Your task to perform on an android device: Add lg ultragear to the cart on bestbuy, then select checkout. Image 0: 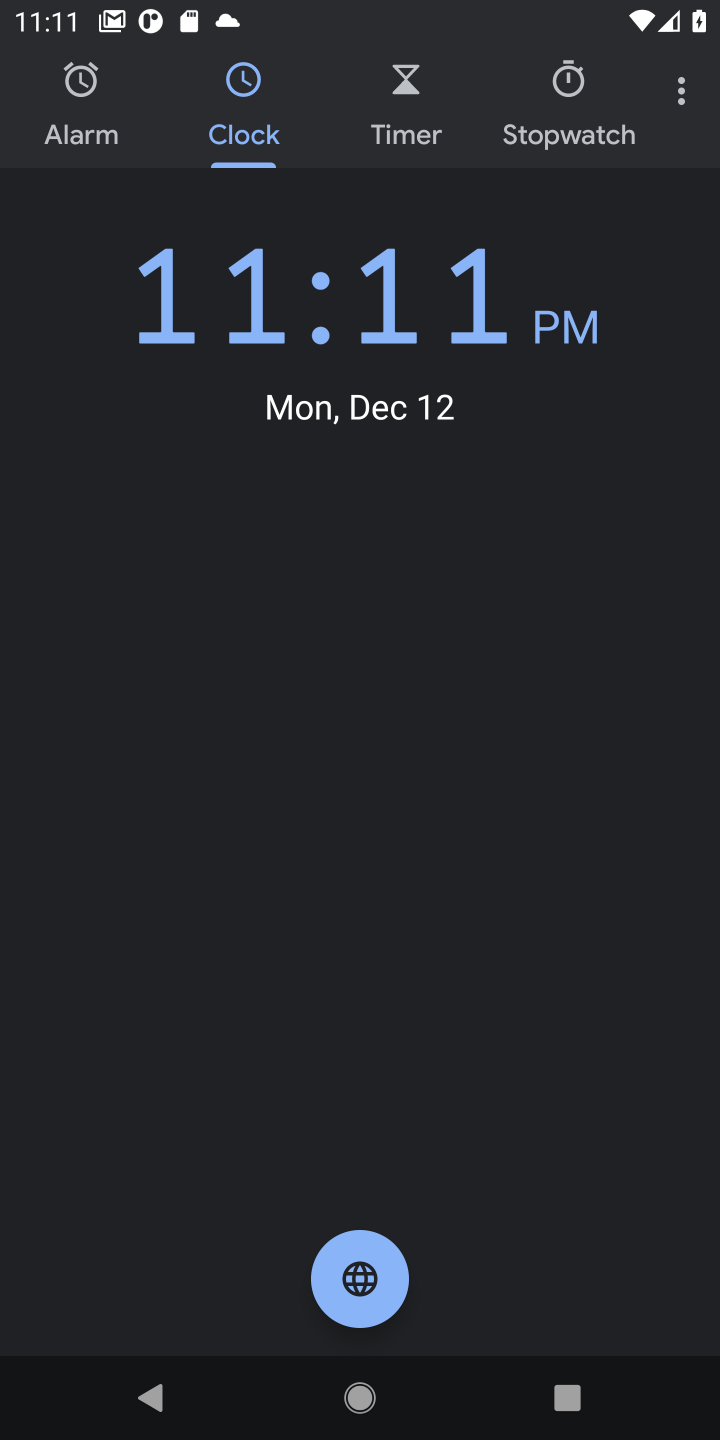
Step 0: press home button
Your task to perform on an android device: Add lg ultragear to the cart on bestbuy, then select checkout. Image 1: 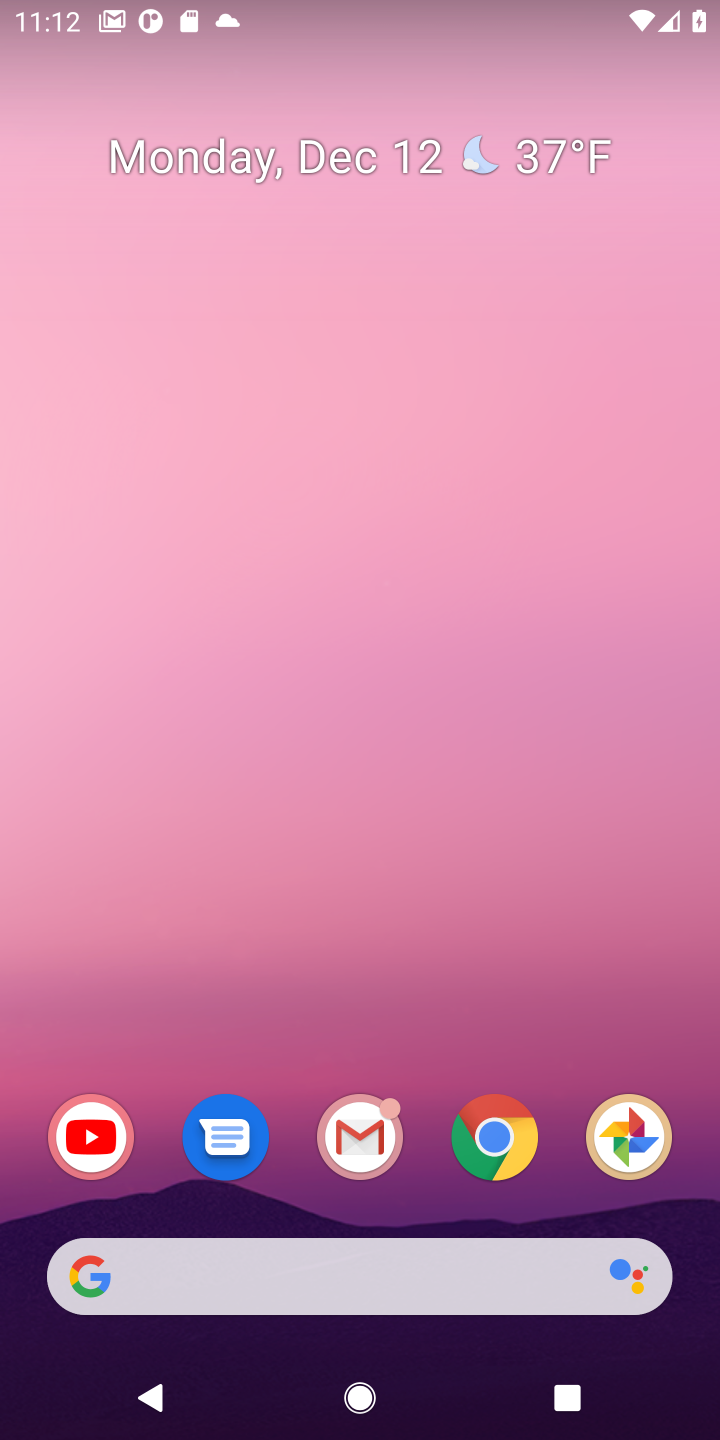
Step 1: click (445, 1259)
Your task to perform on an android device: Add lg ultragear to the cart on bestbuy, then select checkout. Image 2: 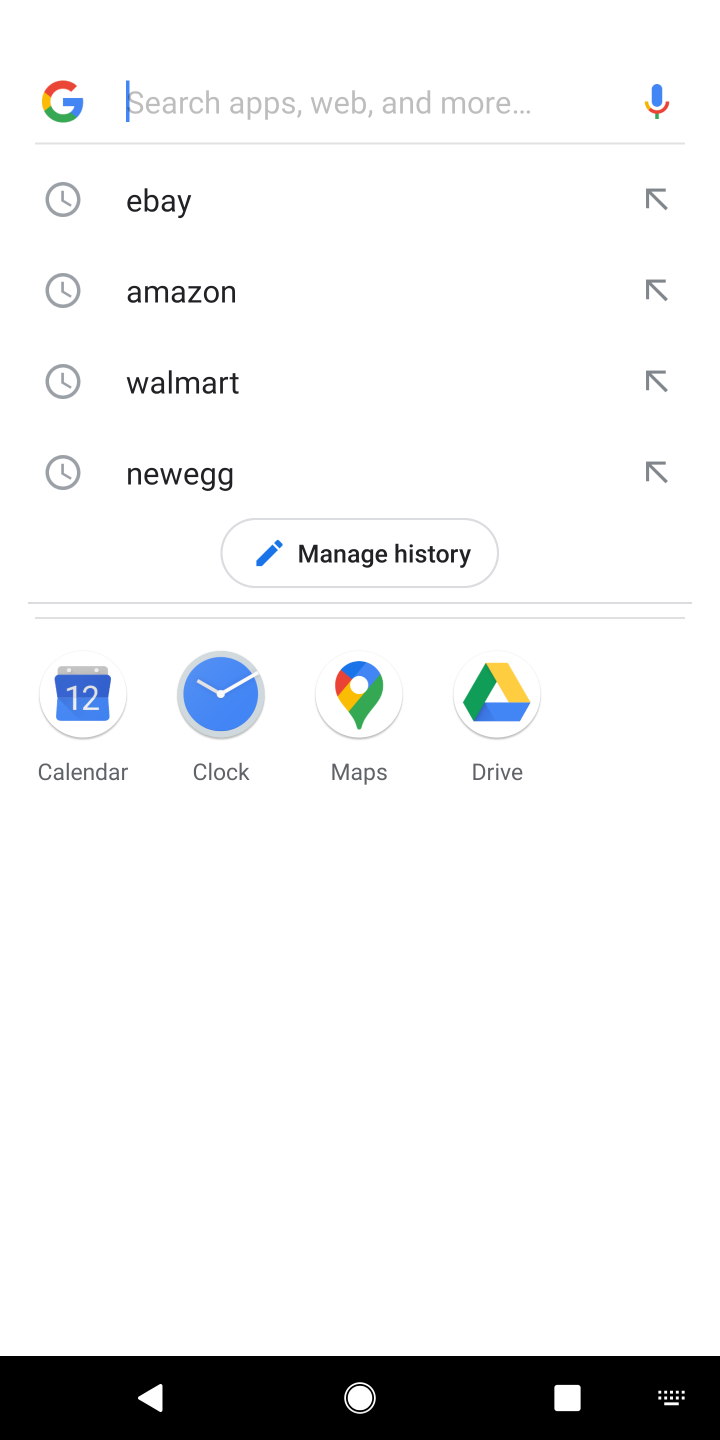
Step 2: type "bestbuy"
Your task to perform on an android device: Add lg ultragear to the cart on bestbuy, then select checkout. Image 3: 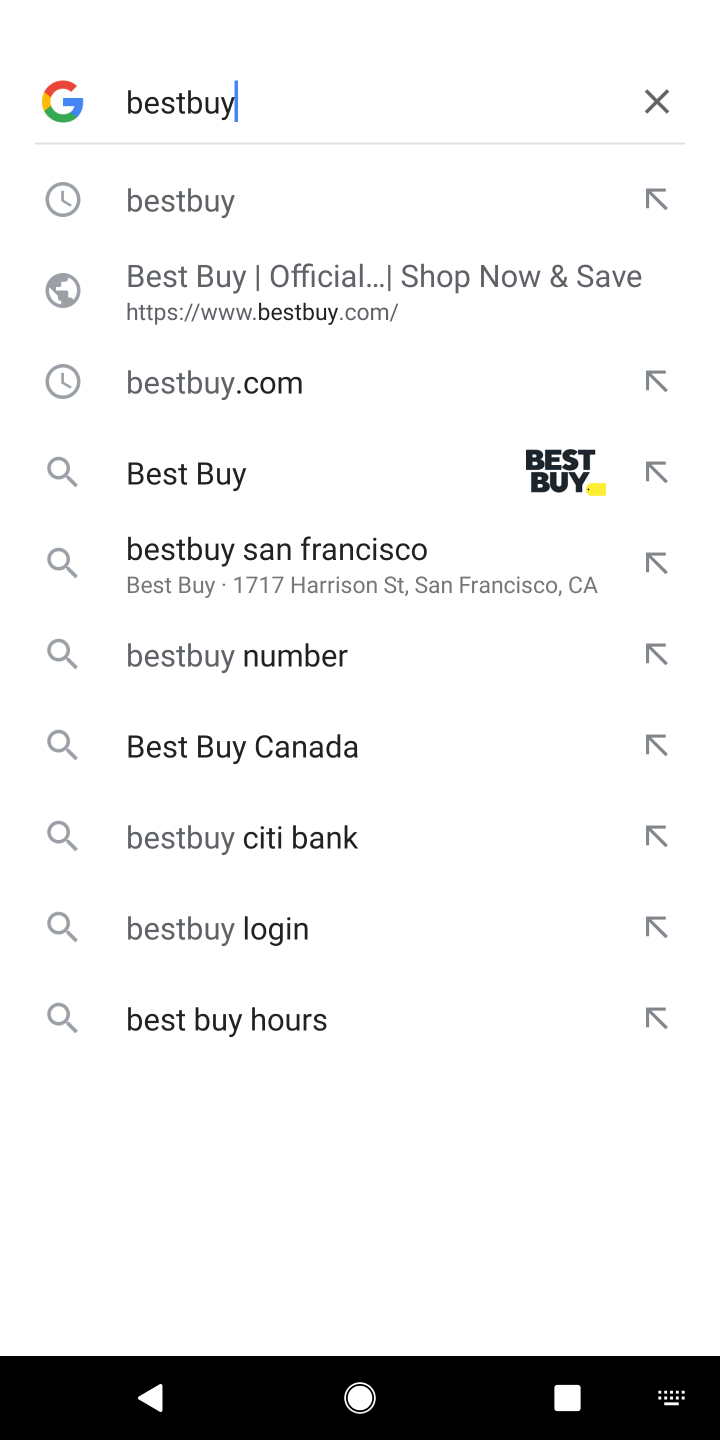
Step 3: click (301, 180)
Your task to perform on an android device: Add lg ultragear to the cart on bestbuy, then select checkout. Image 4: 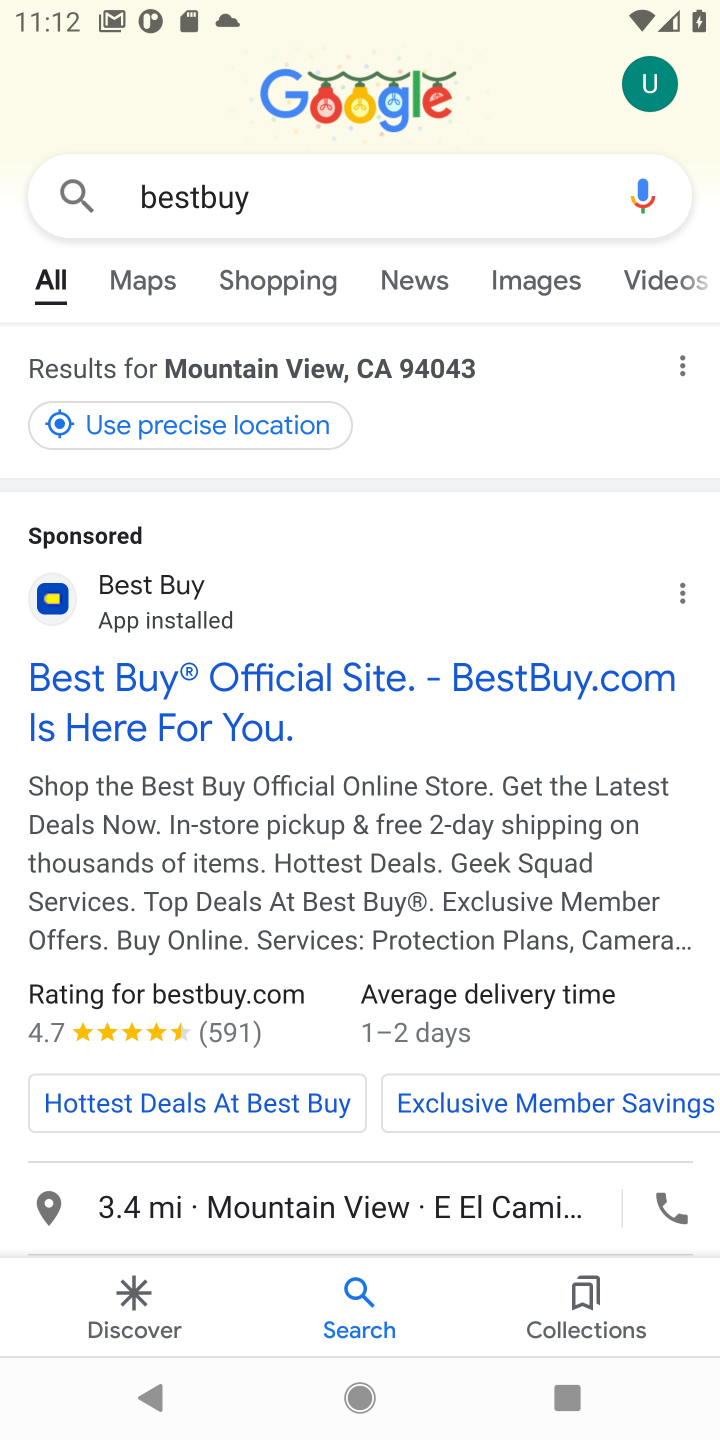
Step 4: click (130, 721)
Your task to perform on an android device: Add lg ultragear to the cart on bestbuy, then select checkout. Image 5: 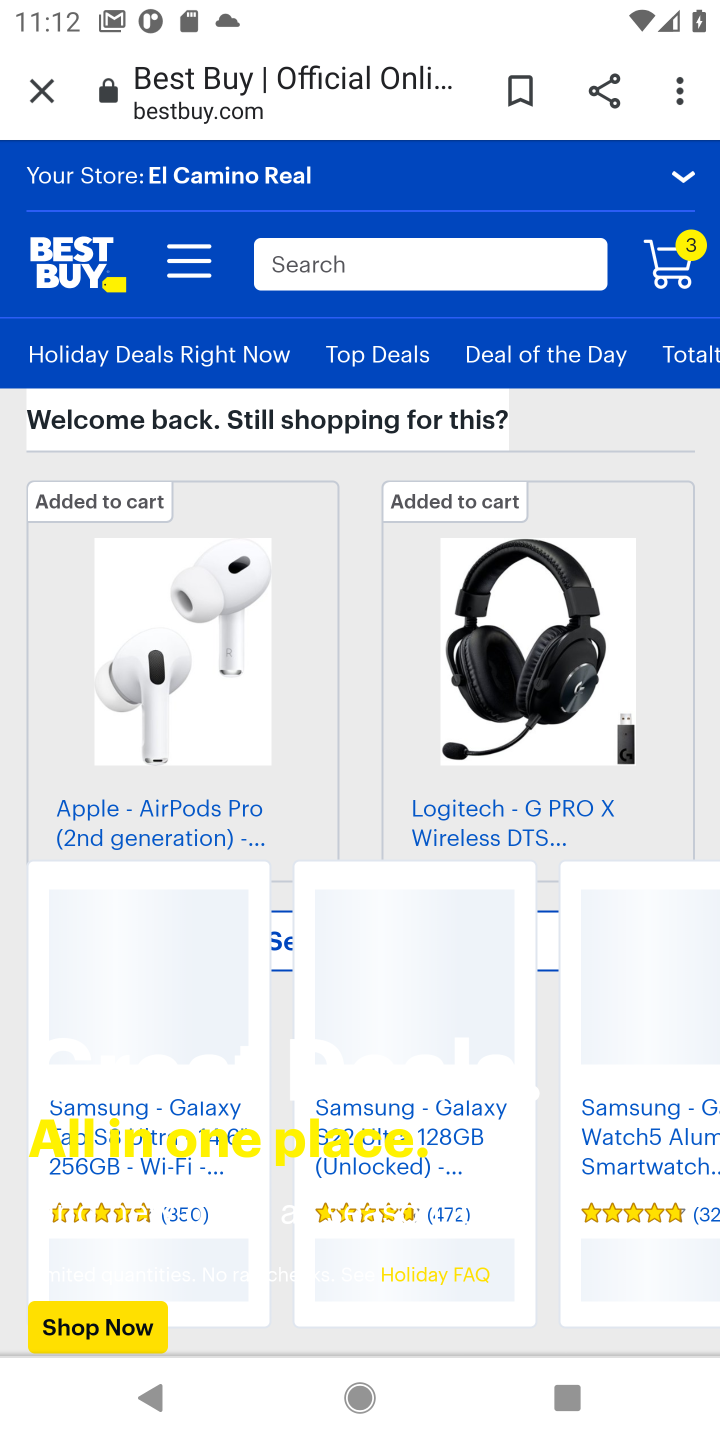
Step 5: click (404, 287)
Your task to perform on an android device: Add lg ultragear to the cart on bestbuy, then select checkout. Image 6: 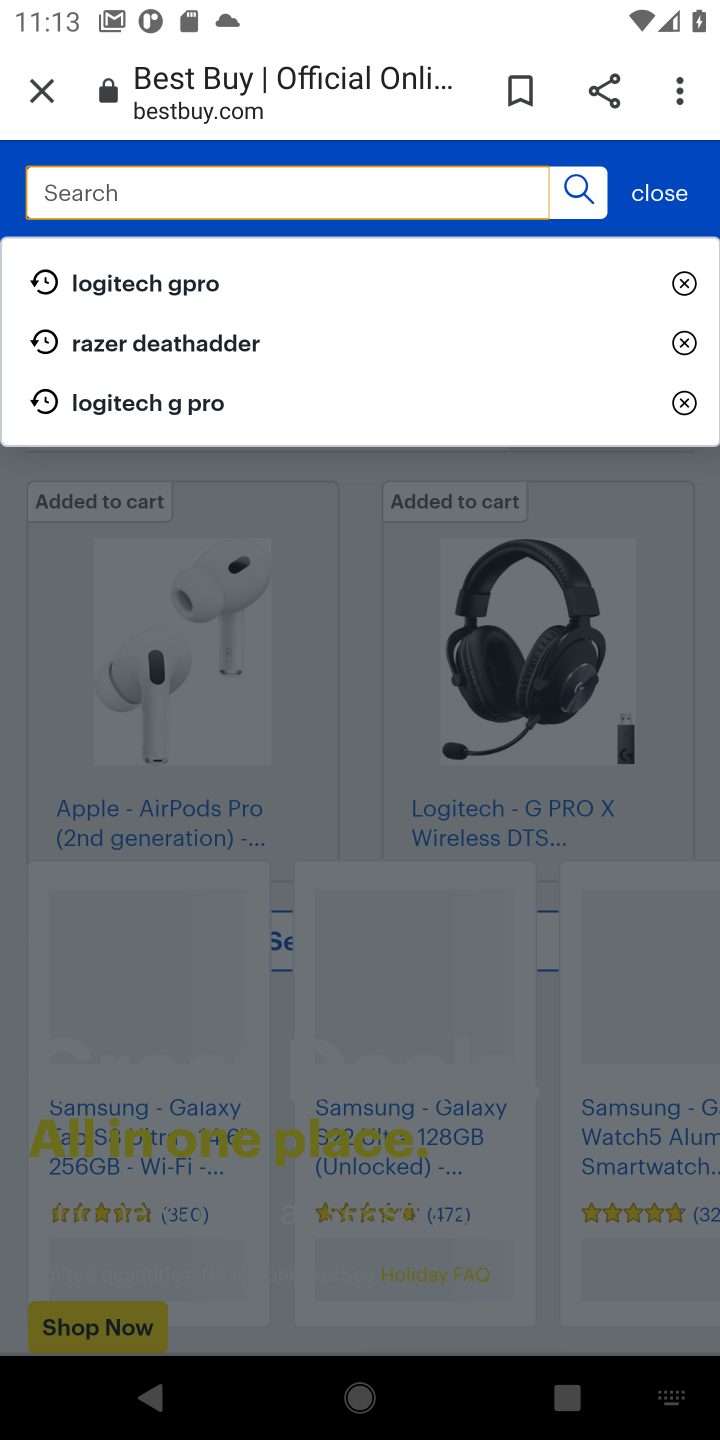
Step 6: type "lg ultragear"
Your task to perform on an android device: Add lg ultragear to the cart on bestbuy, then select checkout. Image 7: 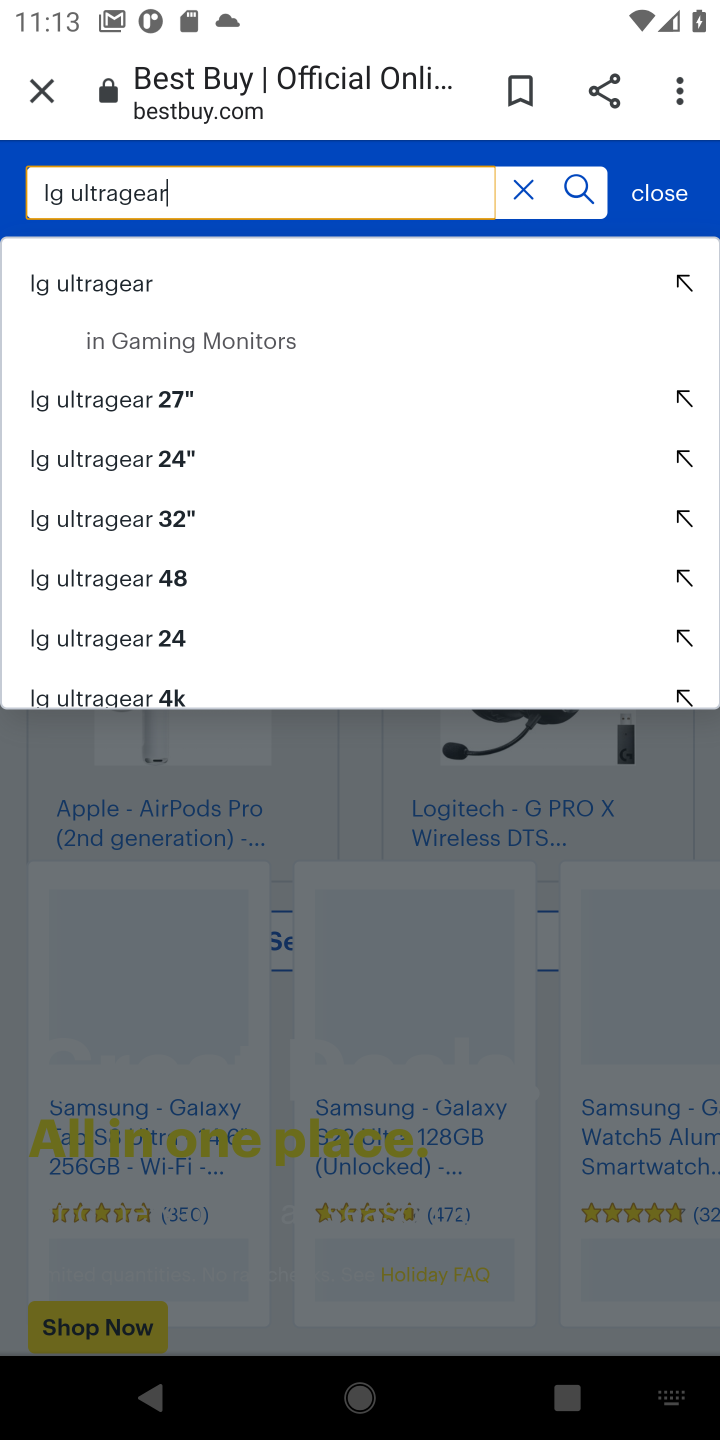
Step 7: click (107, 294)
Your task to perform on an android device: Add lg ultragear to the cart on bestbuy, then select checkout. Image 8: 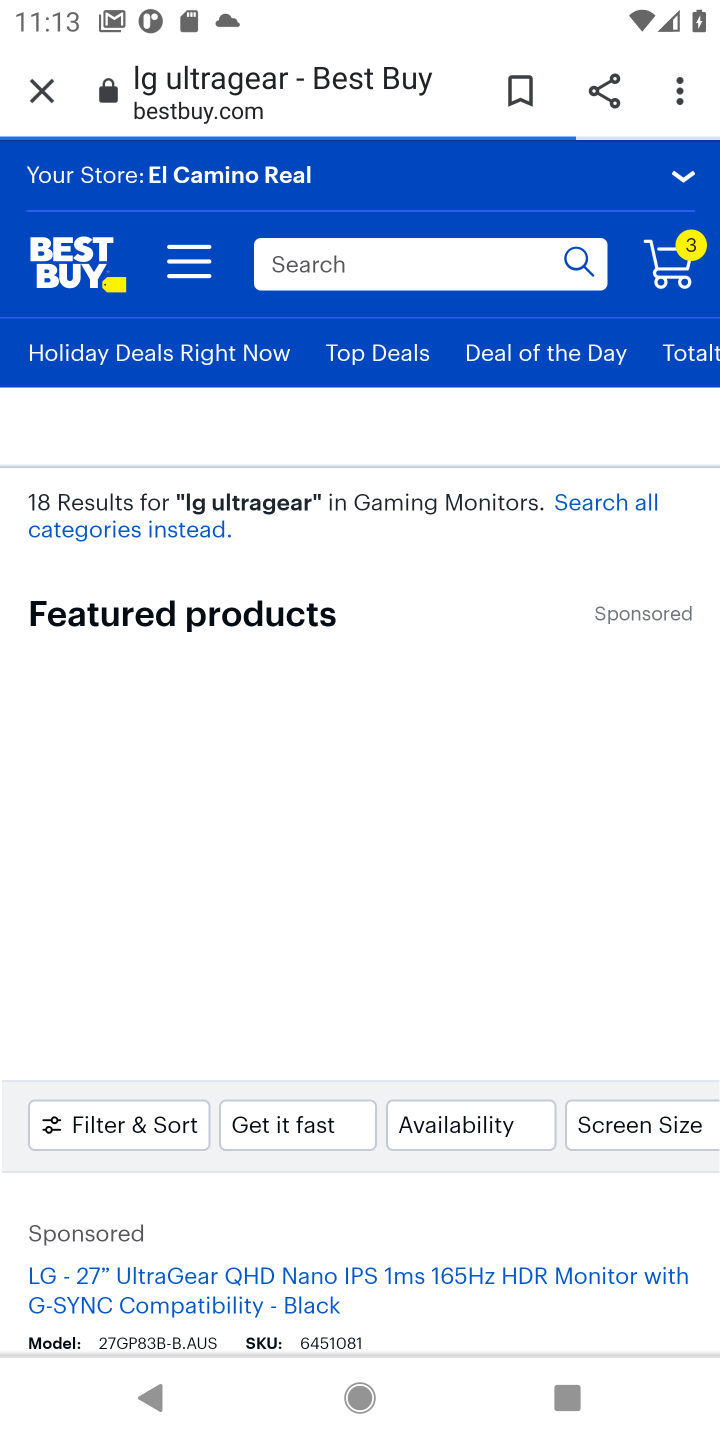
Step 8: click (593, 194)
Your task to perform on an android device: Add lg ultragear to the cart on bestbuy, then select checkout. Image 9: 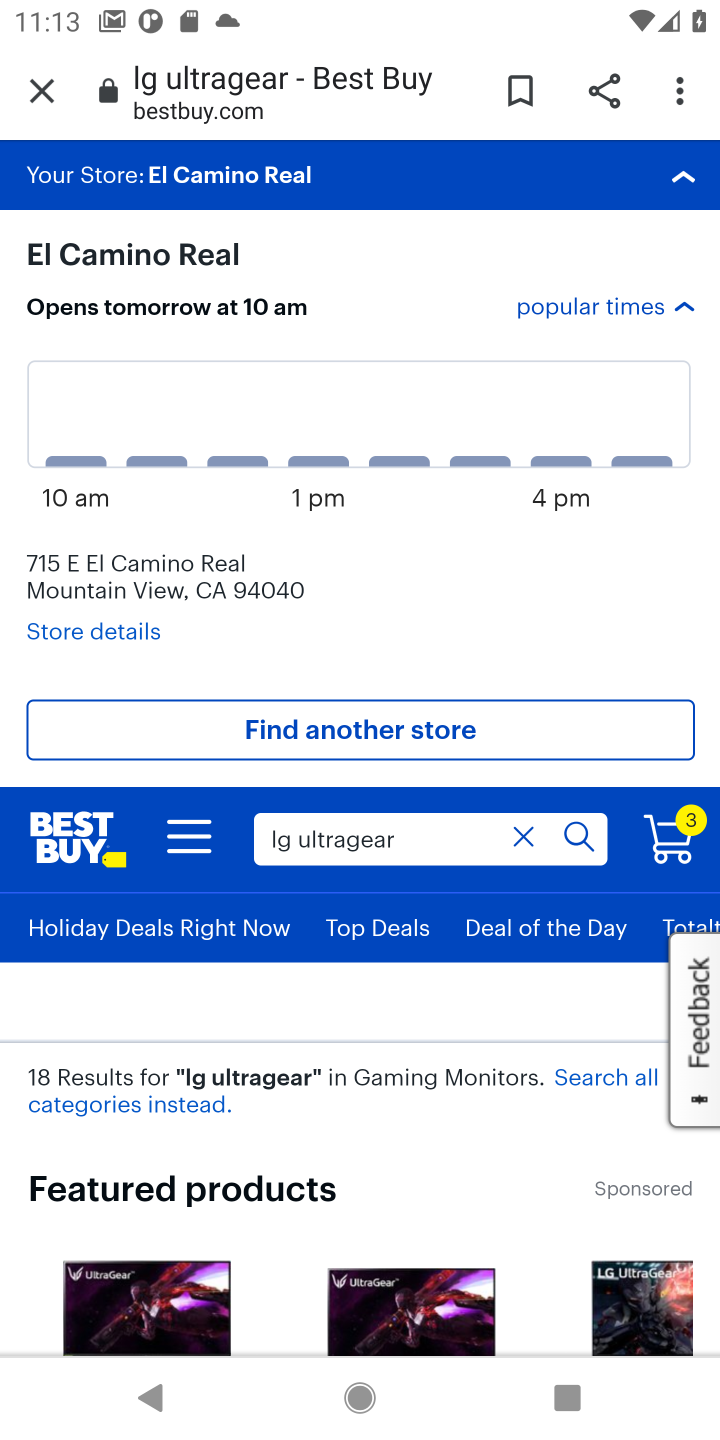
Step 9: click (524, 833)
Your task to perform on an android device: Add lg ultragear to the cart on bestbuy, then select checkout. Image 10: 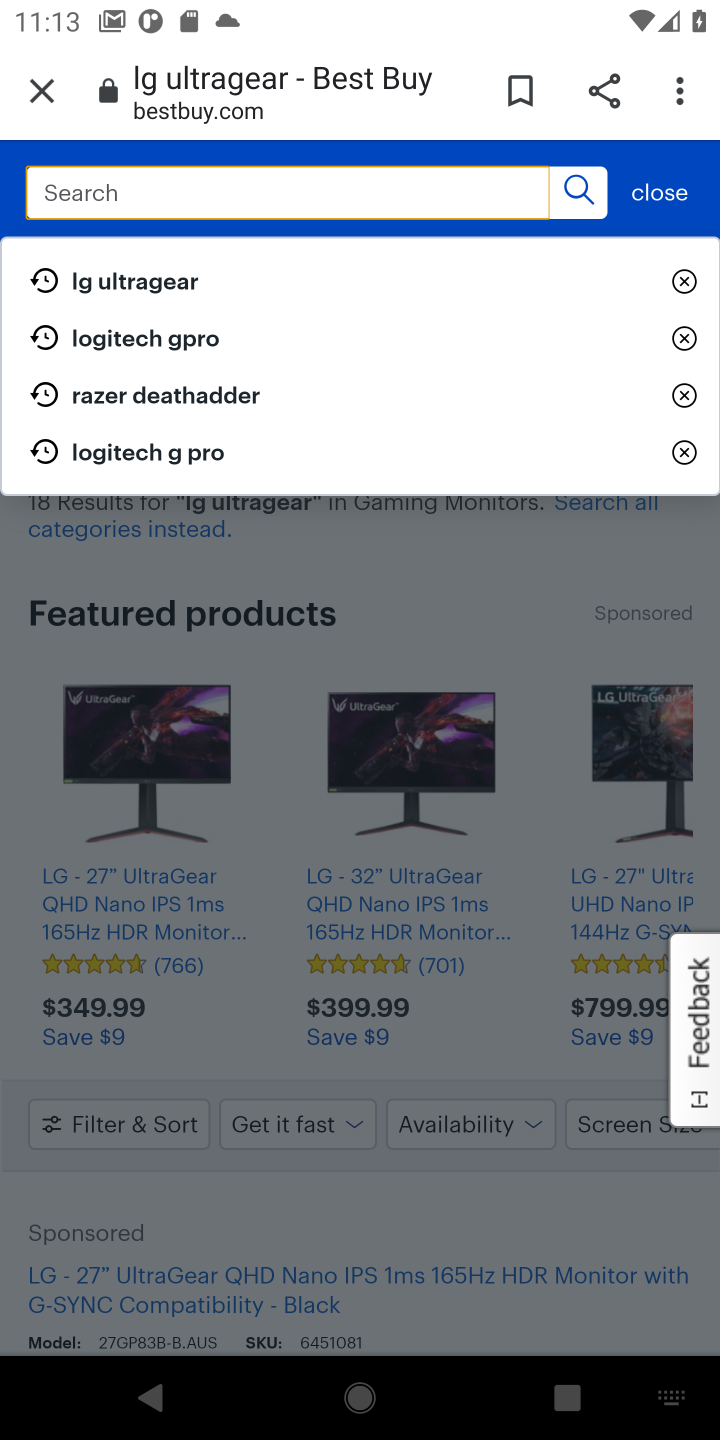
Step 10: click (77, 277)
Your task to perform on an android device: Add lg ultragear to the cart on bestbuy, then select checkout. Image 11: 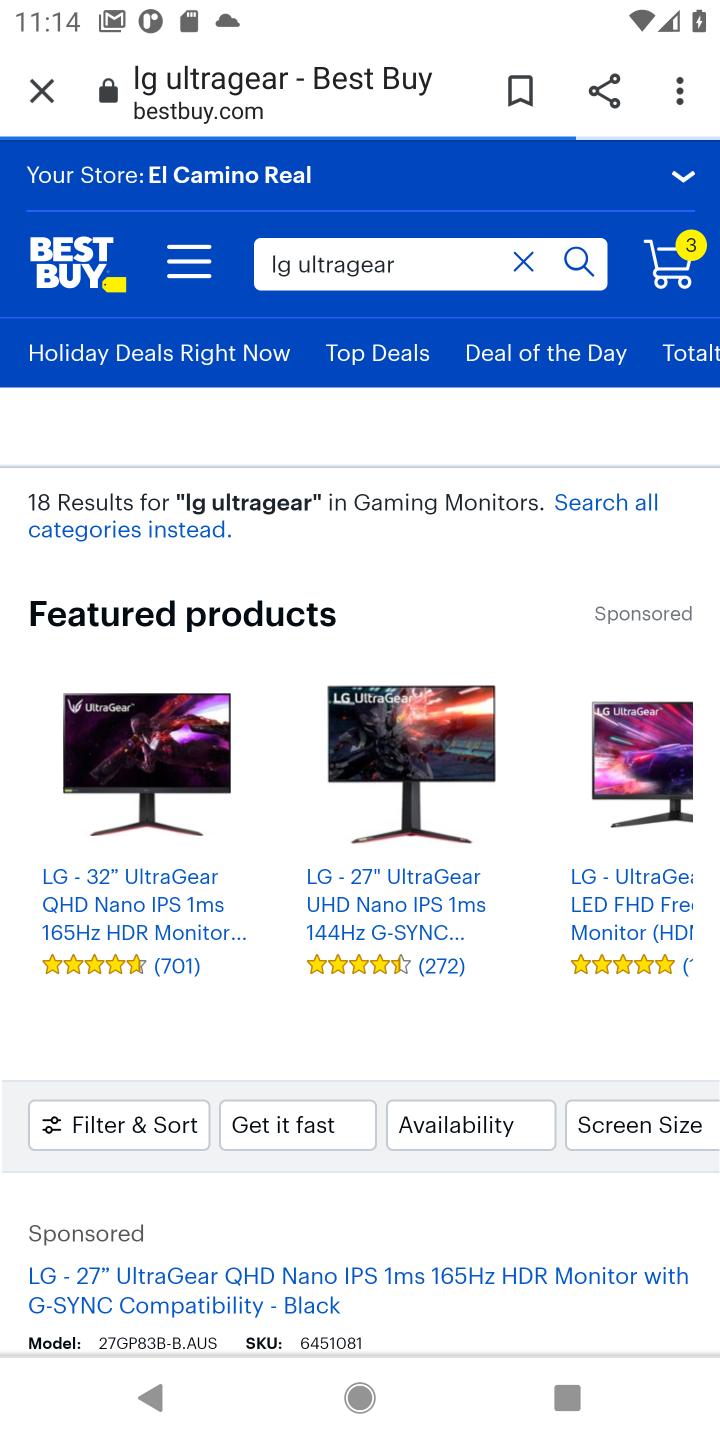
Step 11: click (224, 901)
Your task to perform on an android device: Add lg ultragear to the cart on bestbuy, then select checkout. Image 12: 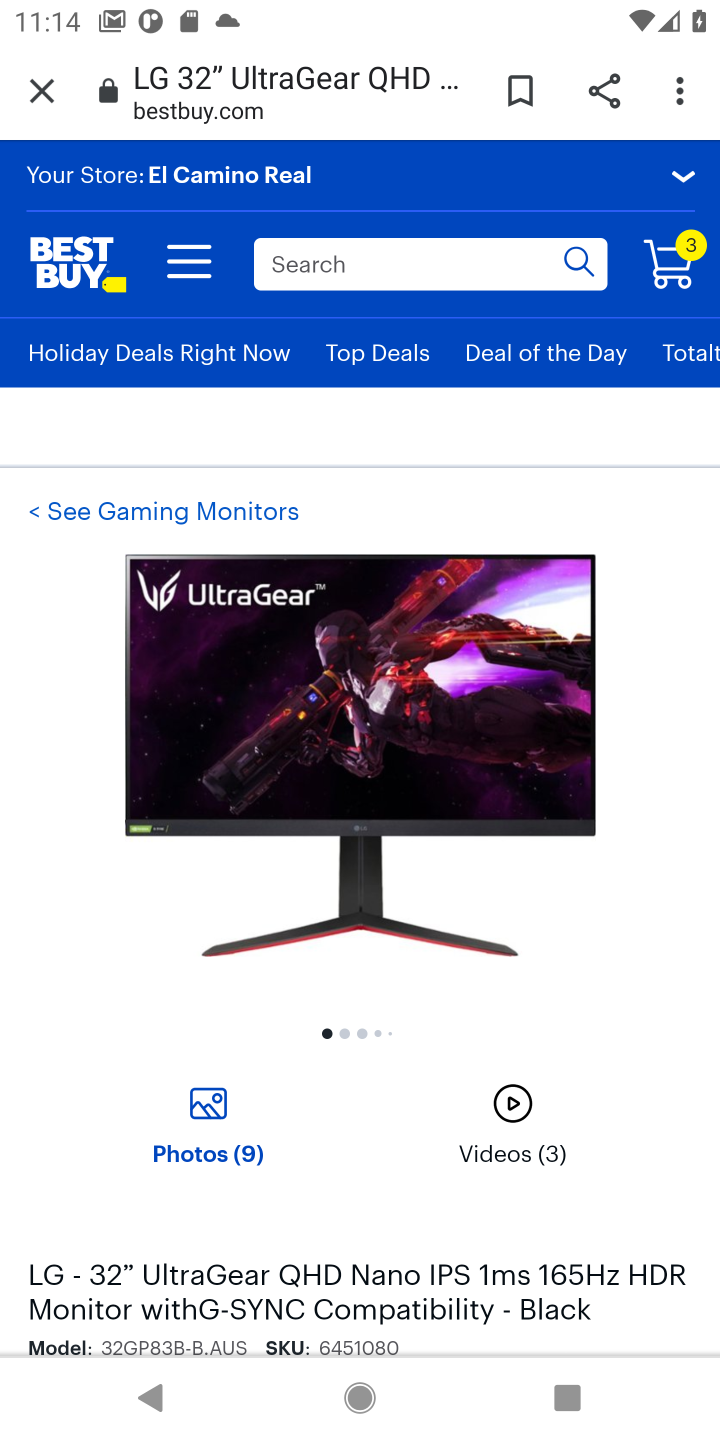
Step 12: task complete